Your task to perform on an android device: refresh tabs in the chrome app Image 0: 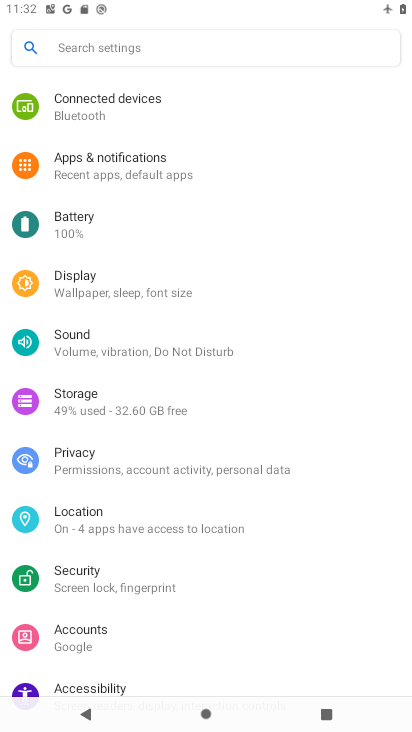
Step 0: press home button
Your task to perform on an android device: refresh tabs in the chrome app Image 1: 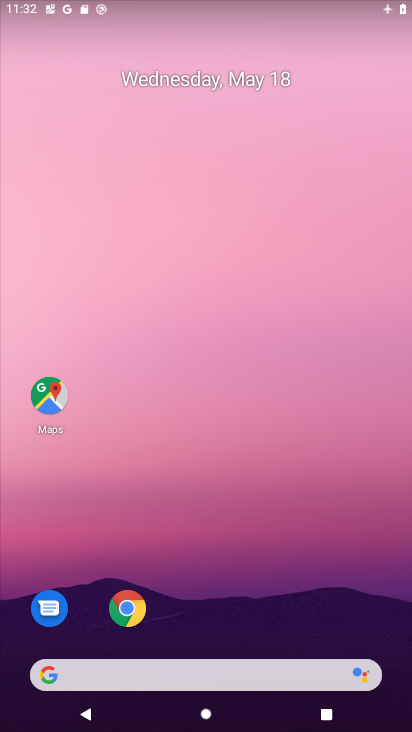
Step 1: click (127, 601)
Your task to perform on an android device: refresh tabs in the chrome app Image 2: 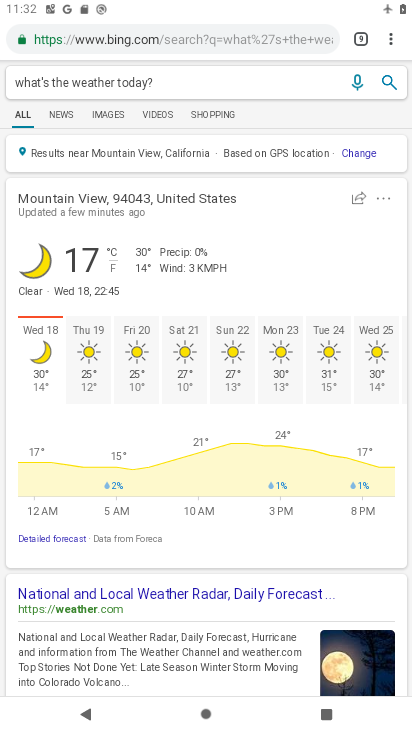
Step 2: click (395, 40)
Your task to perform on an android device: refresh tabs in the chrome app Image 3: 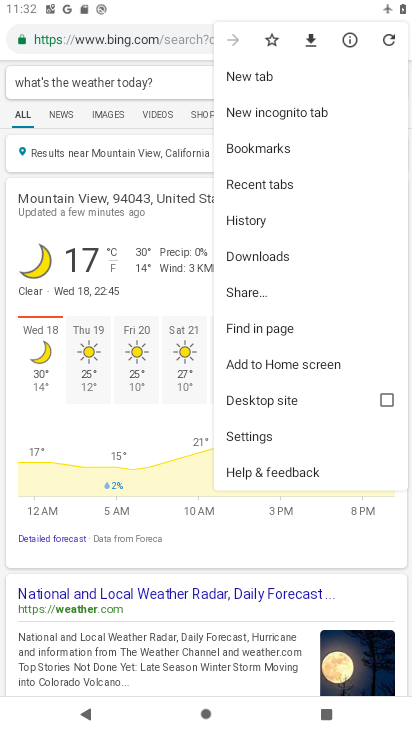
Step 3: click (388, 42)
Your task to perform on an android device: refresh tabs in the chrome app Image 4: 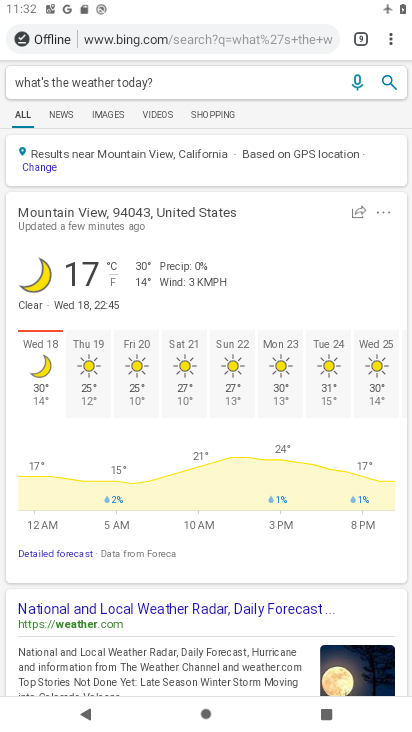
Step 4: task complete